Your task to perform on an android device: Check the weather Image 0: 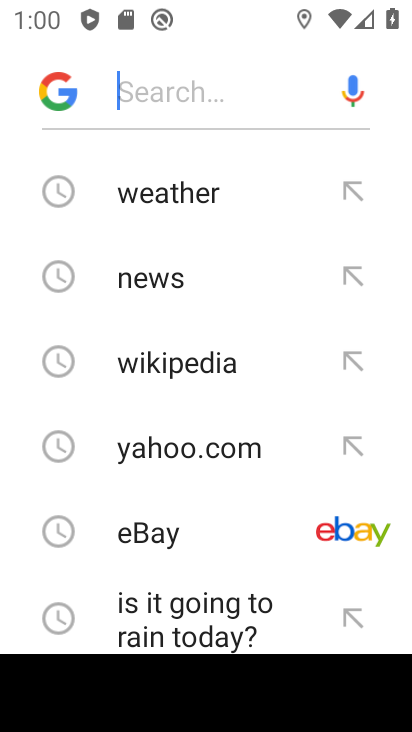
Step 0: press back button
Your task to perform on an android device: Check the weather Image 1: 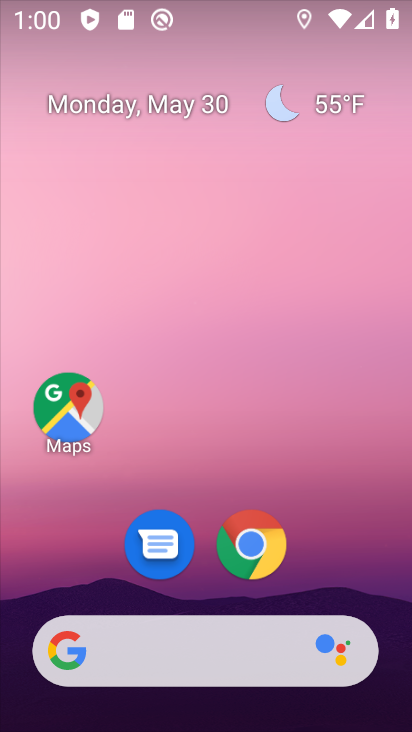
Step 1: click (339, 102)
Your task to perform on an android device: Check the weather Image 2: 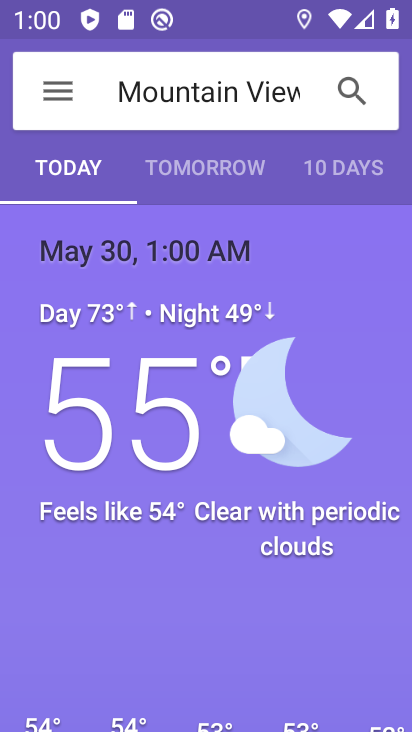
Step 2: task complete